Your task to perform on an android device: turn off improve location accuracy Image 0: 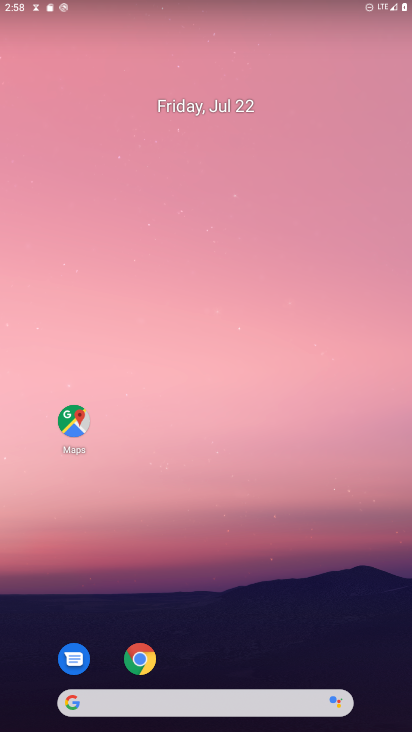
Step 0: drag from (252, 3) to (213, 18)
Your task to perform on an android device: turn off improve location accuracy Image 1: 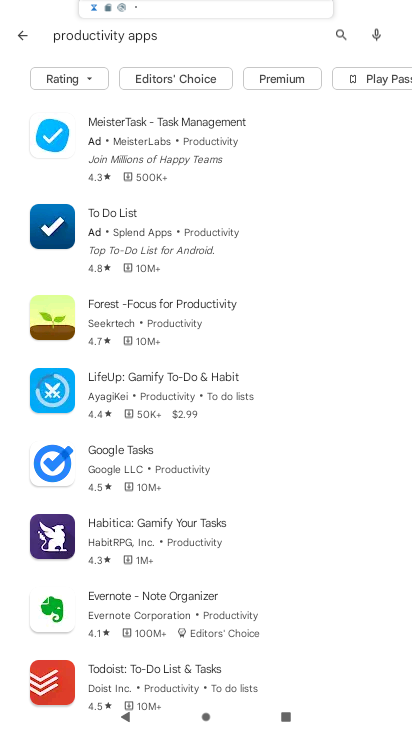
Step 1: drag from (170, 448) to (246, 54)
Your task to perform on an android device: turn off improve location accuracy Image 2: 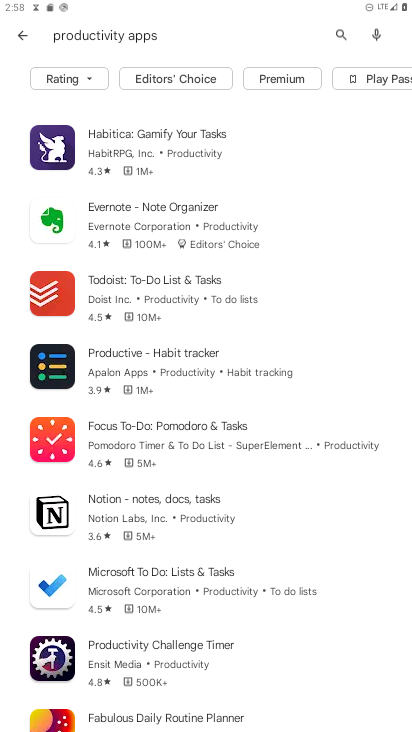
Step 2: drag from (228, 129) to (279, 611)
Your task to perform on an android device: turn off improve location accuracy Image 3: 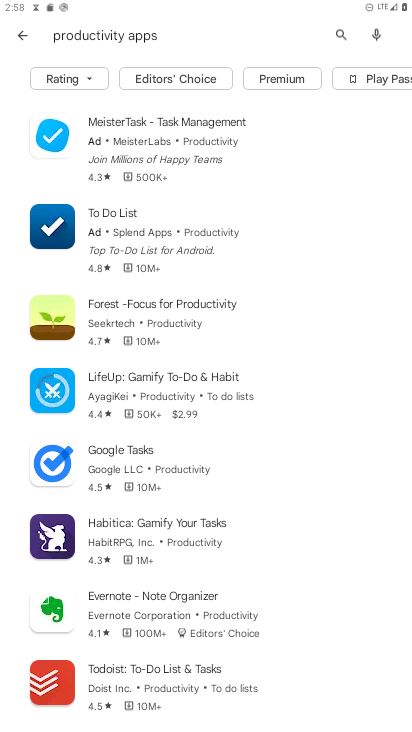
Step 3: press home button
Your task to perform on an android device: turn off improve location accuracy Image 4: 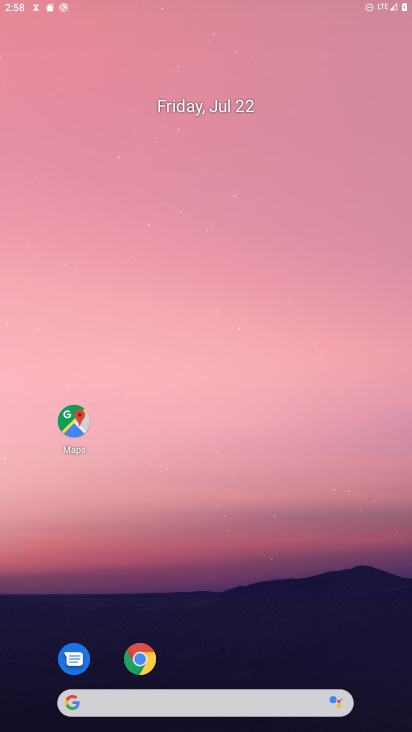
Step 4: drag from (287, 555) to (334, 1)
Your task to perform on an android device: turn off improve location accuracy Image 5: 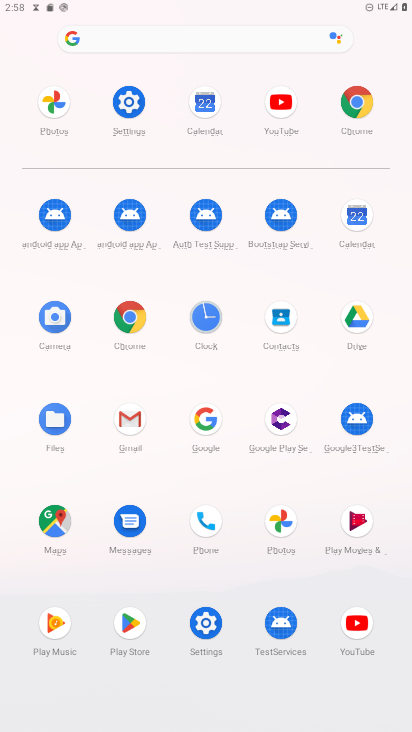
Step 5: click (148, 98)
Your task to perform on an android device: turn off improve location accuracy Image 6: 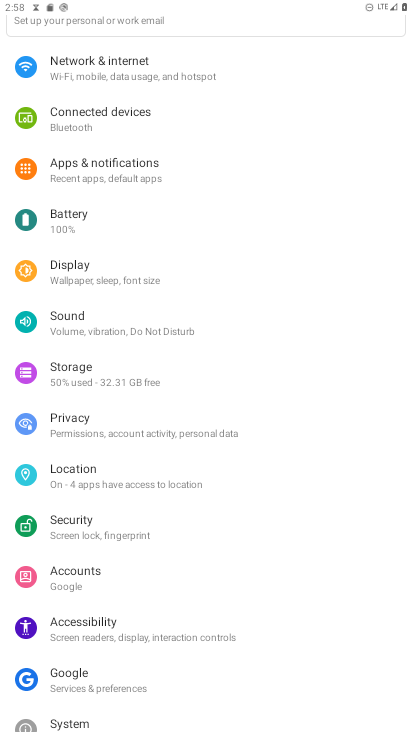
Step 6: click (80, 493)
Your task to perform on an android device: turn off improve location accuracy Image 7: 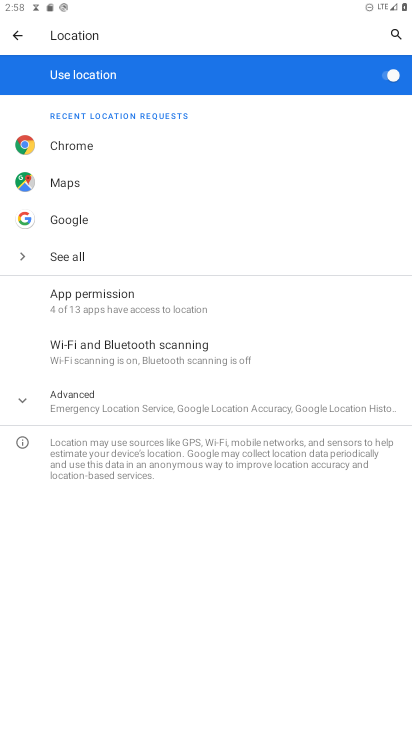
Step 7: click (71, 401)
Your task to perform on an android device: turn off improve location accuracy Image 8: 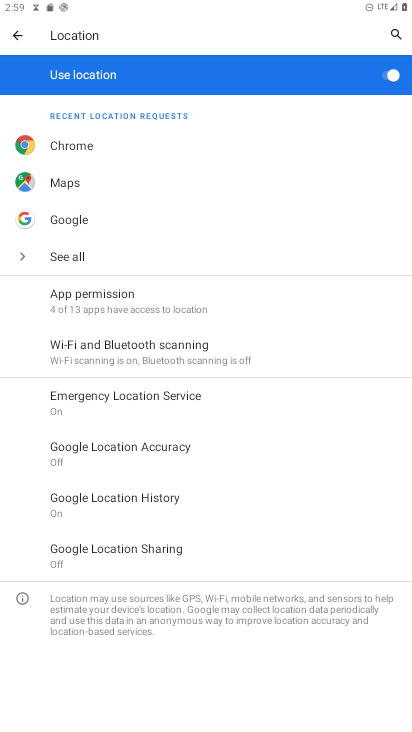
Step 8: click (89, 457)
Your task to perform on an android device: turn off improve location accuracy Image 9: 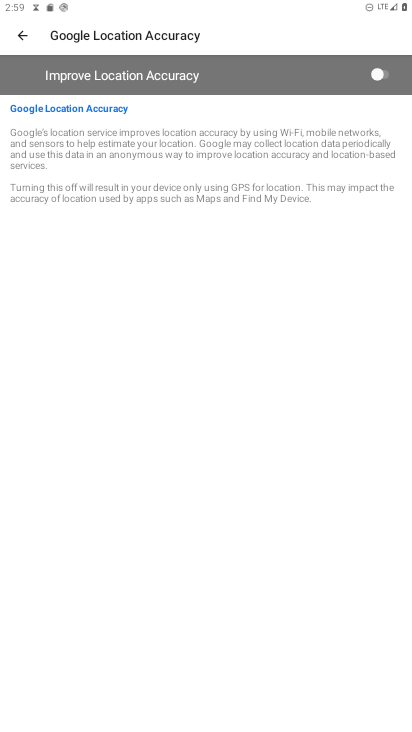
Step 9: task complete